Your task to perform on an android device: open a bookmark in the chrome app Image 0: 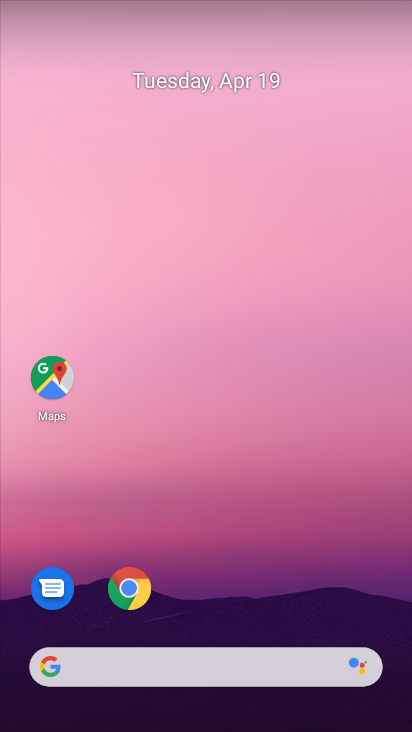
Step 0: press home button
Your task to perform on an android device: open a bookmark in the chrome app Image 1: 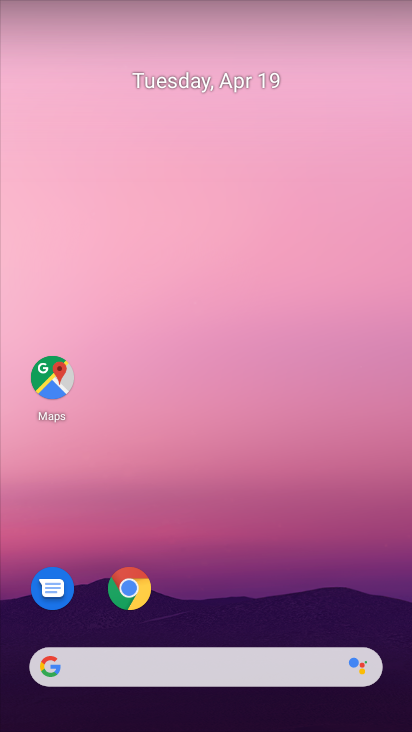
Step 1: click (124, 589)
Your task to perform on an android device: open a bookmark in the chrome app Image 2: 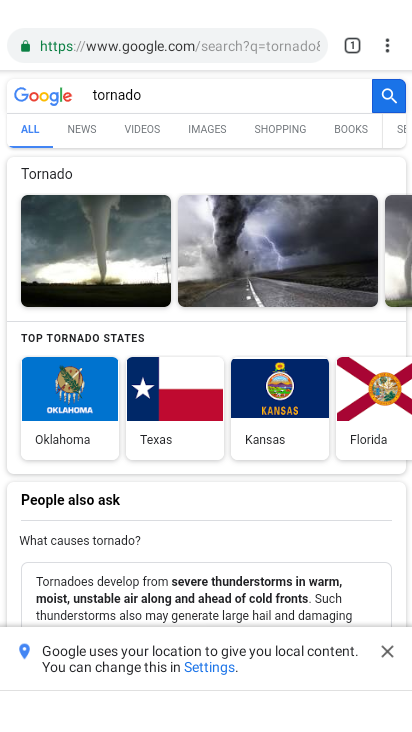
Step 2: click (391, 41)
Your task to perform on an android device: open a bookmark in the chrome app Image 3: 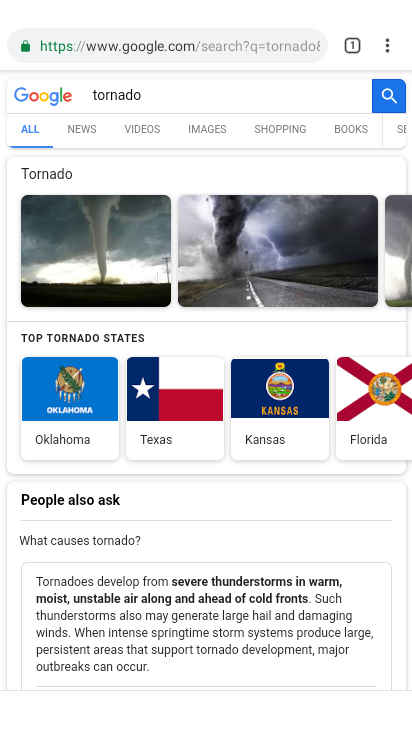
Step 3: click (384, 47)
Your task to perform on an android device: open a bookmark in the chrome app Image 4: 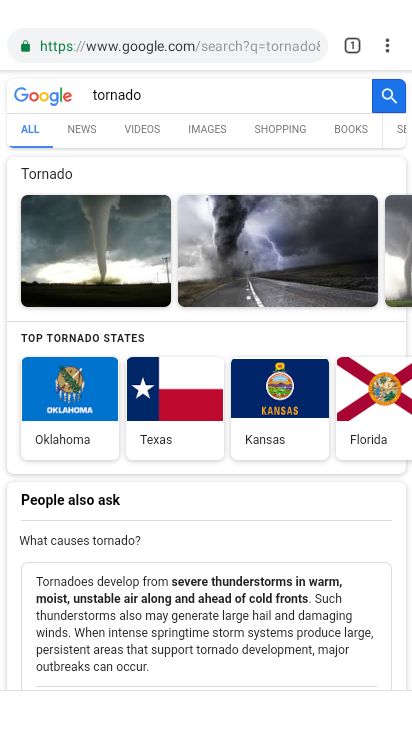
Step 4: click (385, 44)
Your task to perform on an android device: open a bookmark in the chrome app Image 5: 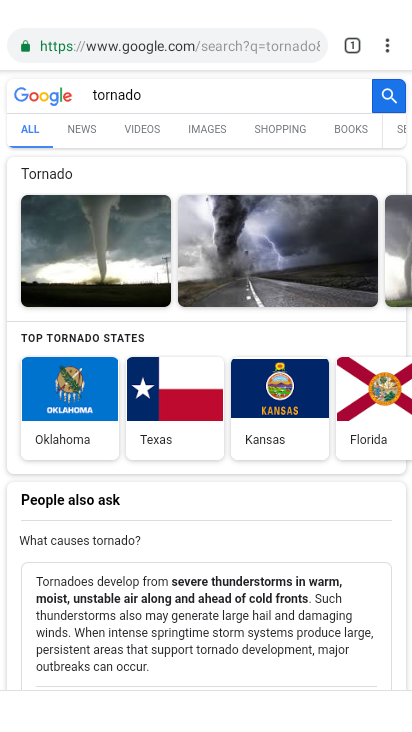
Step 5: click (386, 42)
Your task to perform on an android device: open a bookmark in the chrome app Image 6: 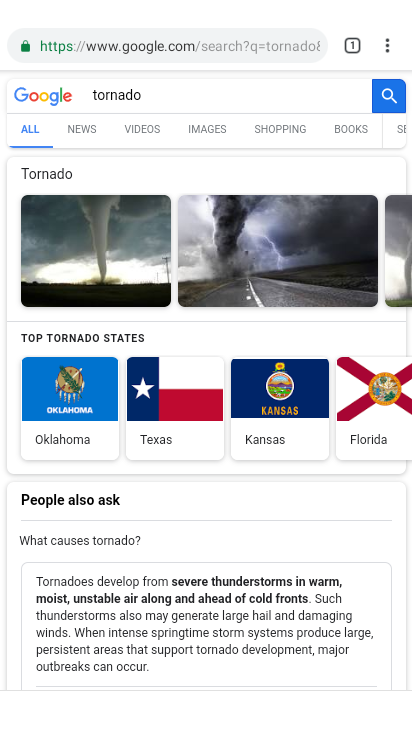
Step 6: click (388, 45)
Your task to perform on an android device: open a bookmark in the chrome app Image 7: 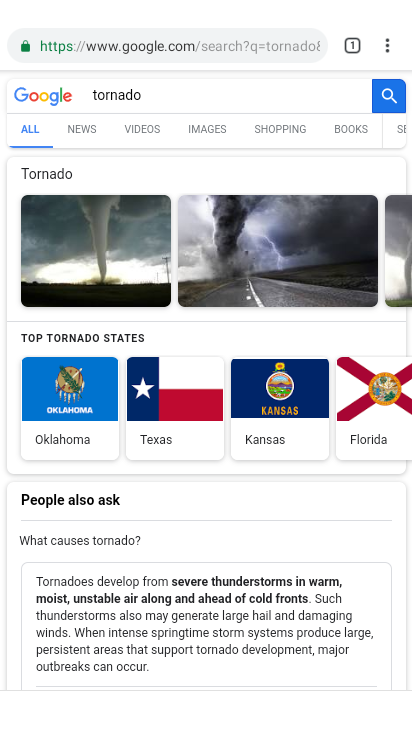
Step 7: click (386, 51)
Your task to perform on an android device: open a bookmark in the chrome app Image 8: 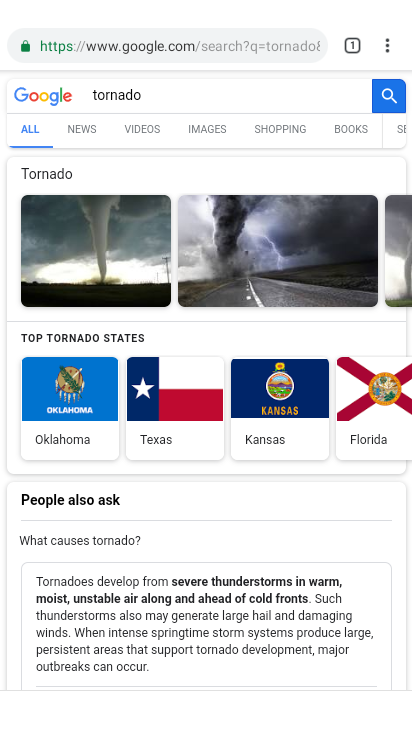
Step 8: click (379, 46)
Your task to perform on an android device: open a bookmark in the chrome app Image 9: 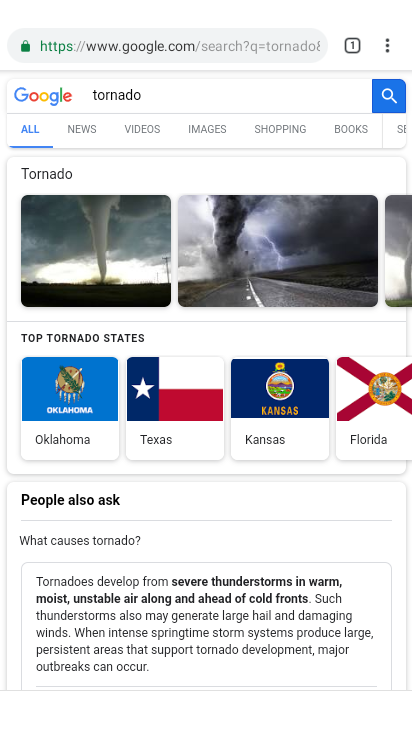
Step 9: press back button
Your task to perform on an android device: open a bookmark in the chrome app Image 10: 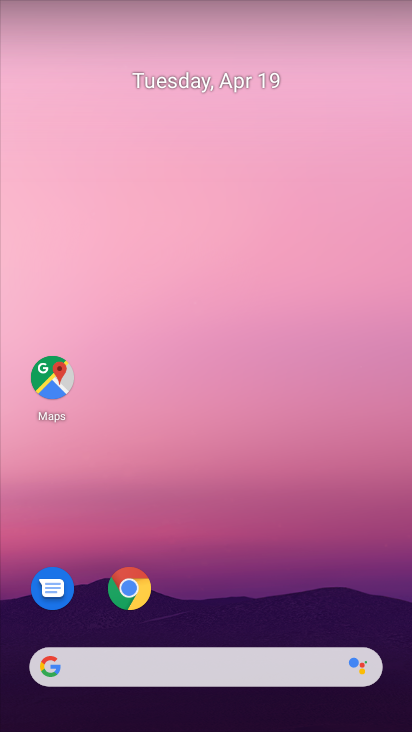
Step 10: click (131, 585)
Your task to perform on an android device: open a bookmark in the chrome app Image 11: 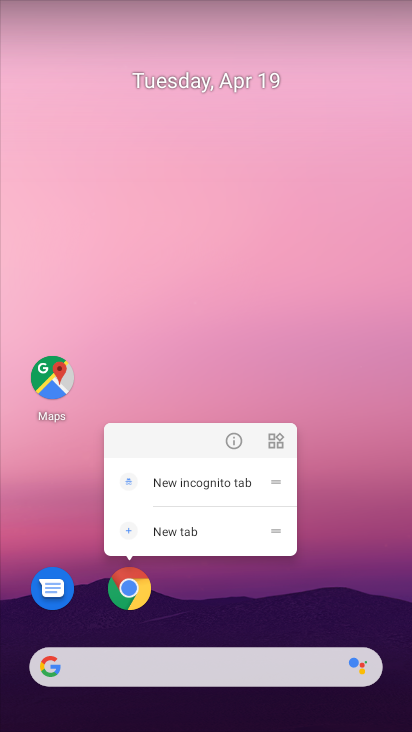
Step 11: click (125, 584)
Your task to perform on an android device: open a bookmark in the chrome app Image 12: 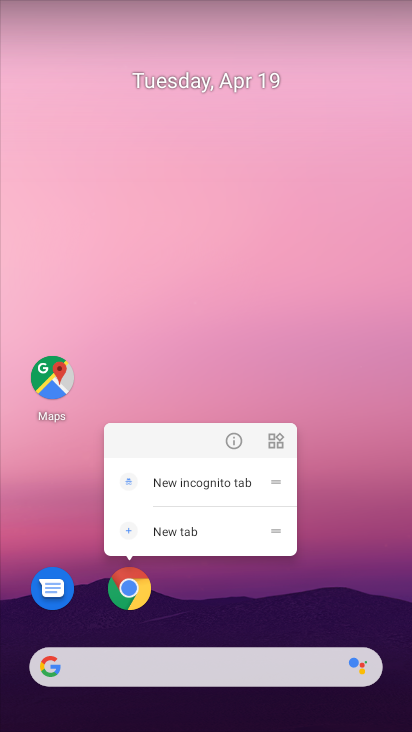
Step 12: click (131, 597)
Your task to perform on an android device: open a bookmark in the chrome app Image 13: 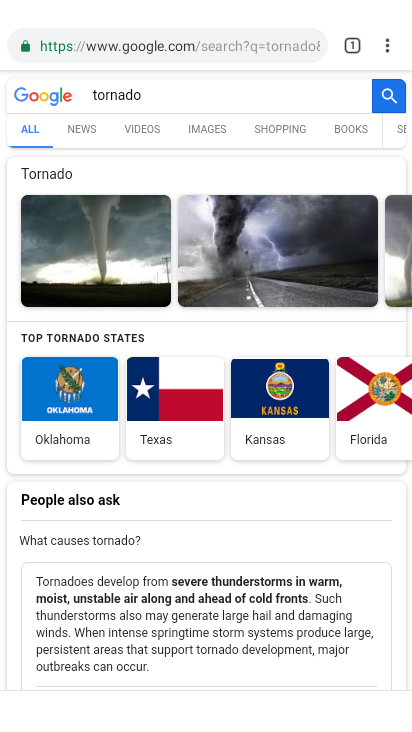
Step 13: click (386, 41)
Your task to perform on an android device: open a bookmark in the chrome app Image 14: 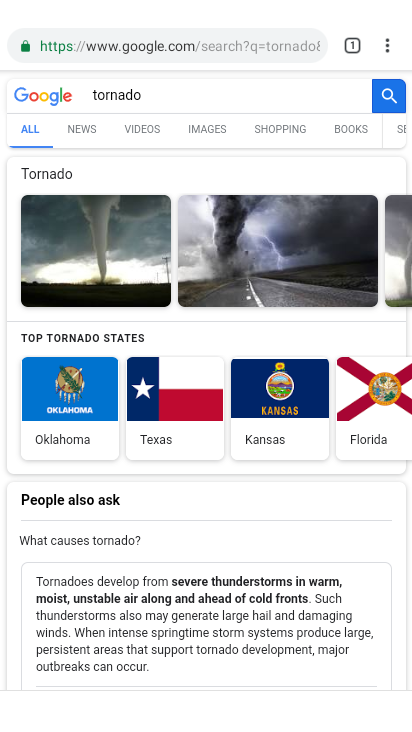
Step 14: click (386, 44)
Your task to perform on an android device: open a bookmark in the chrome app Image 15: 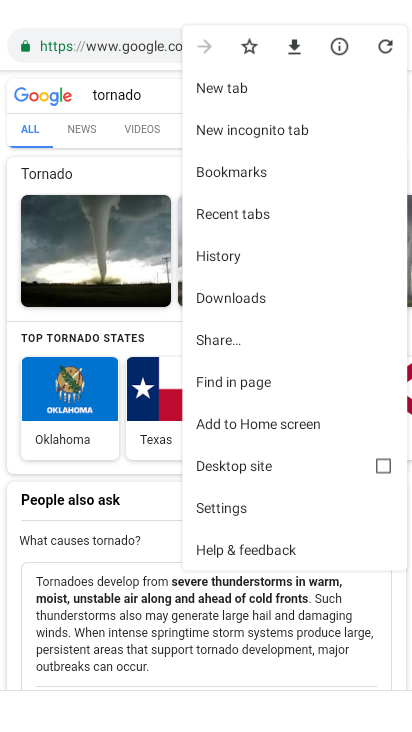
Step 15: click (257, 171)
Your task to perform on an android device: open a bookmark in the chrome app Image 16: 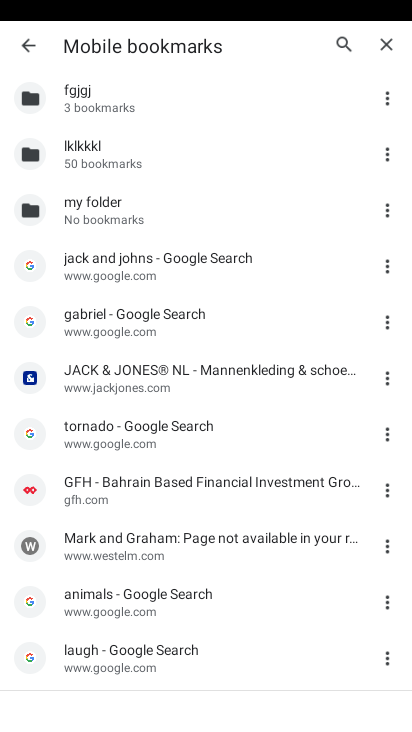
Step 16: click (137, 595)
Your task to perform on an android device: open a bookmark in the chrome app Image 17: 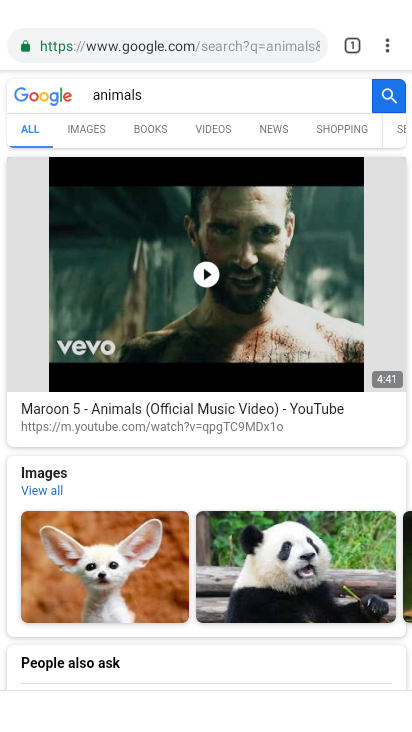
Step 17: task complete